Your task to perform on an android device: turn on priority inbox in the gmail app Image 0: 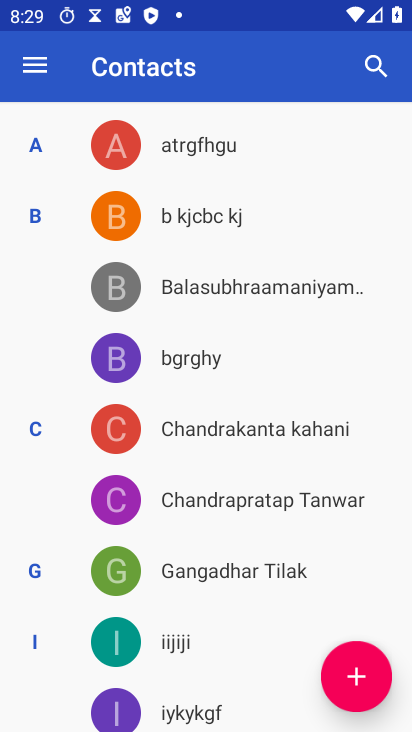
Step 0: press home button
Your task to perform on an android device: turn on priority inbox in the gmail app Image 1: 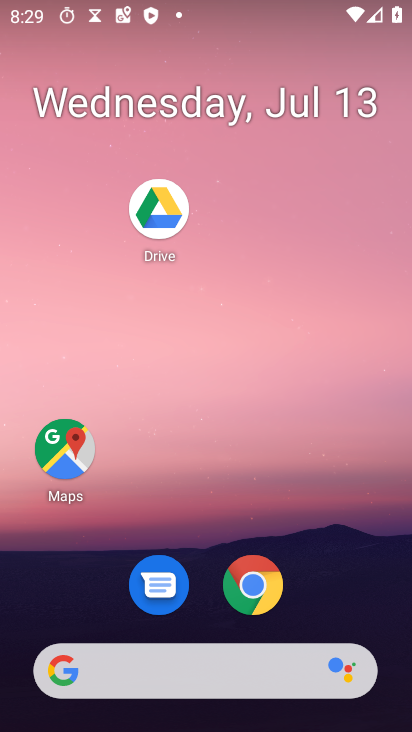
Step 1: drag from (202, 673) to (298, 172)
Your task to perform on an android device: turn on priority inbox in the gmail app Image 2: 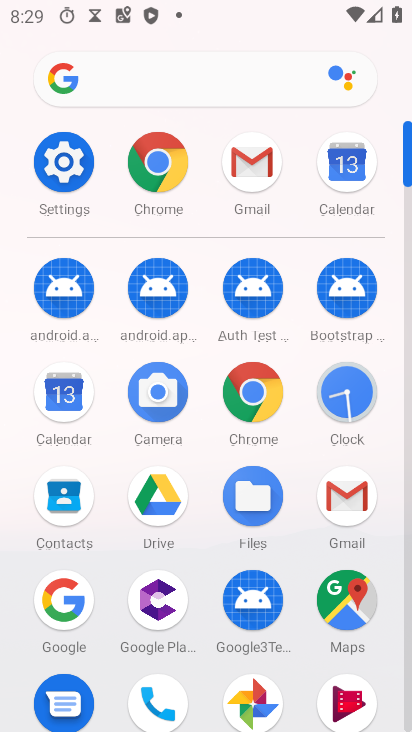
Step 2: click (262, 167)
Your task to perform on an android device: turn on priority inbox in the gmail app Image 3: 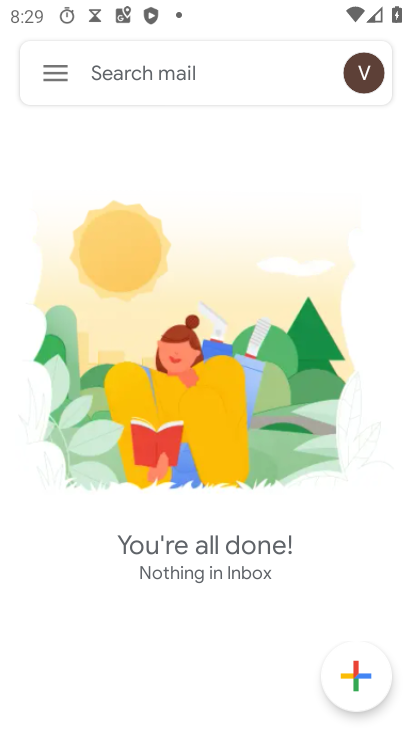
Step 3: click (49, 75)
Your task to perform on an android device: turn on priority inbox in the gmail app Image 4: 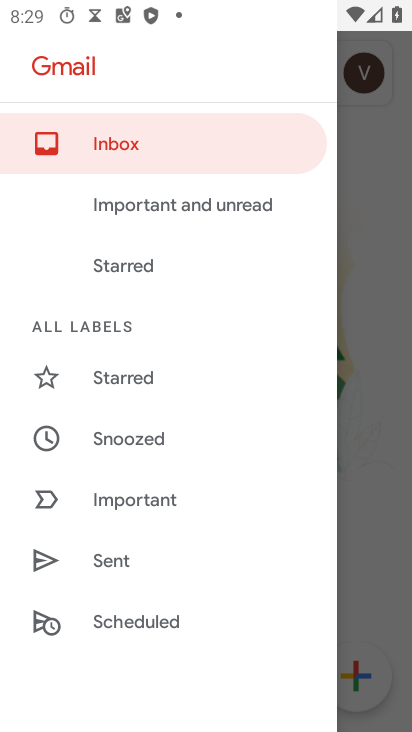
Step 4: drag from (149, 615) to (290, 0)
Your task to perform on an android device: turn on priority inbox in the gmail app Image 5: 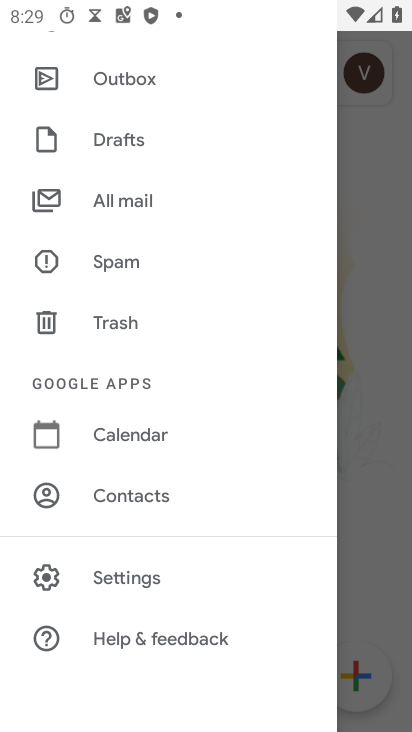
Step 5: click (128, 570)
Your task to perform on an android device: turn on priority inbox in the gmail app Image 6: 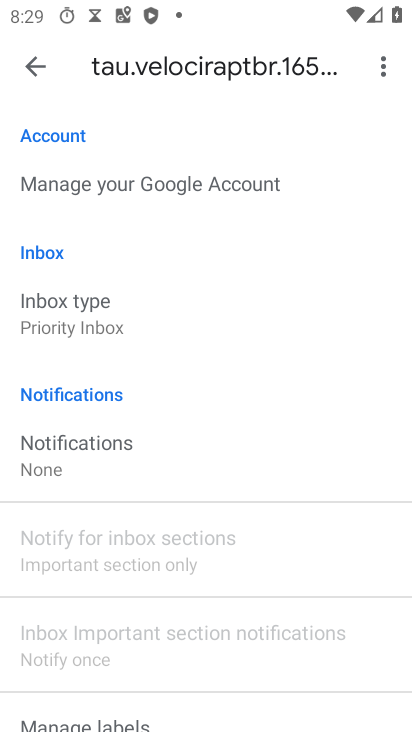
Step 6: click (66, 320)
Your task to perform on an android device: turn on priority inbox in the gmail app Image 7: 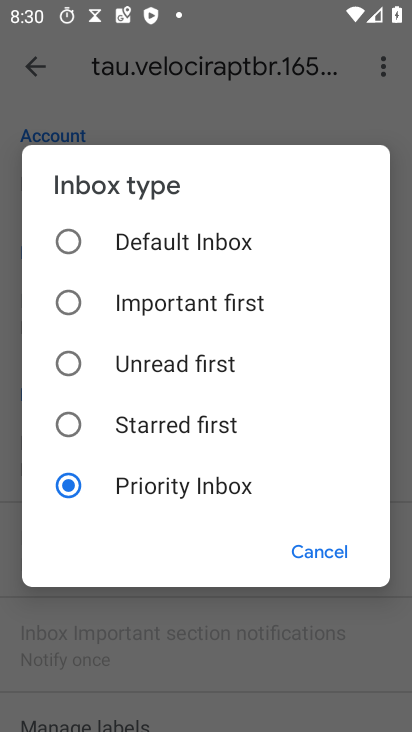
Step 7: task complete